Your task to perform on an android device: turn off sleep mode Image 0: 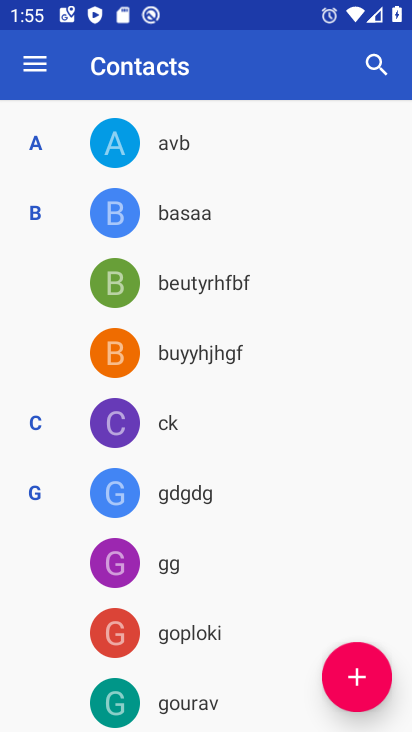
Step 0: press home button
Your task to perform on an android device: turn off sleep mode Image 1: 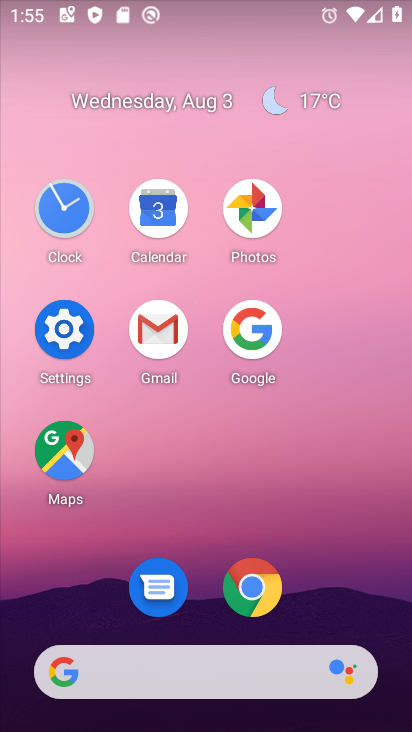
Step 1: click (59, 336)
Your task to perform on an android device: turn off sleep mode Image 2: 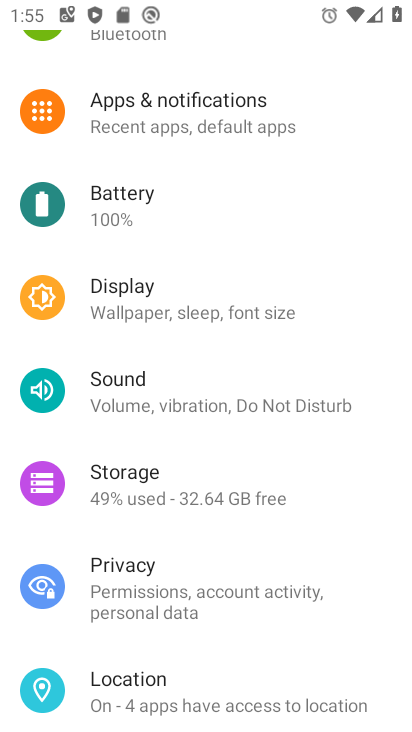
Step 2: click (142, 317)
Your task to perform on an android device: turn off sleep mode Image 3: 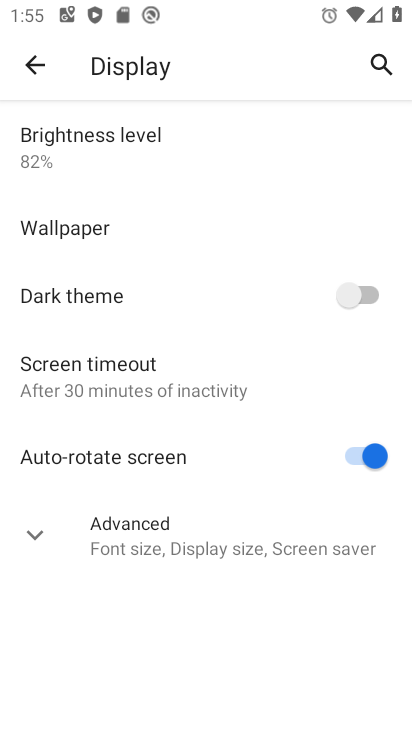
Step 3: click (181, 367)
Your task to perform on an android device: turn off sleep mode Image 4: 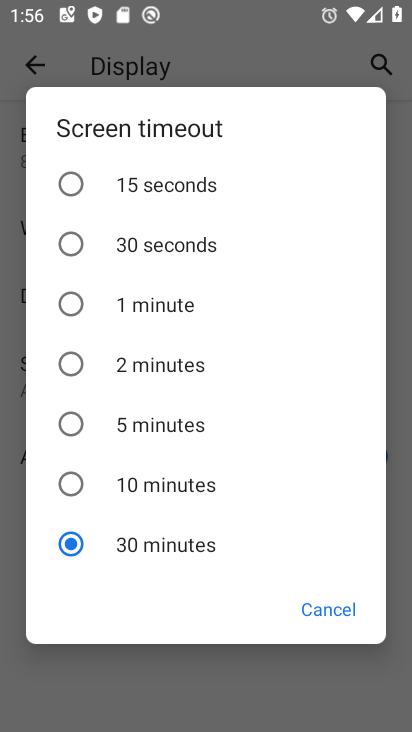
Step 4: task complete